Your task to perform on an android device: Open settings on Google Maps Image 0: 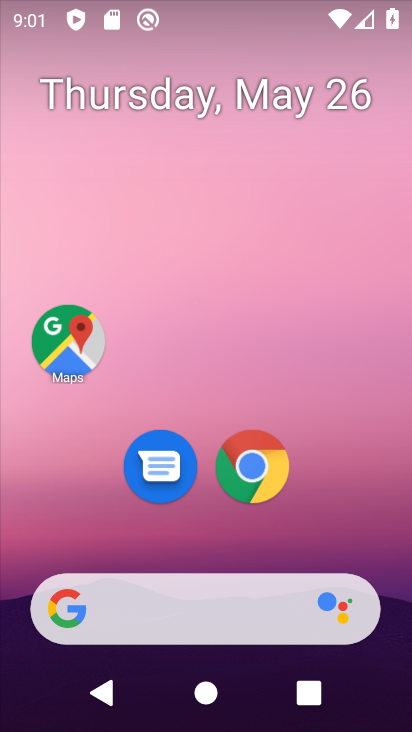
Step 0: click (66, 338)
Your task to perform on an android device: Open settings on Google Maps Image 1: 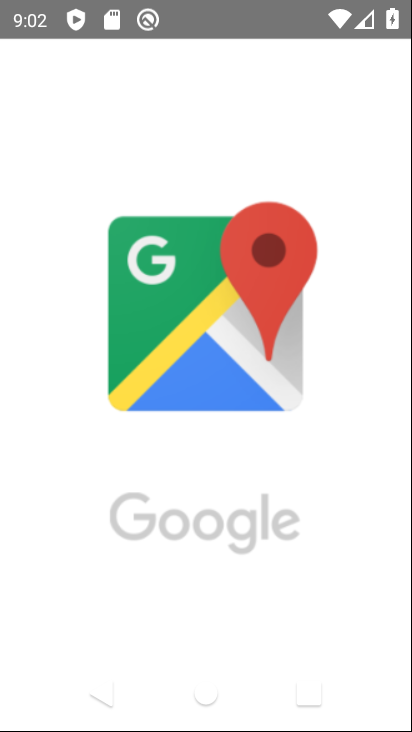
Step 1: task complete